Your task to perform on an android device: delete location history Image 0: 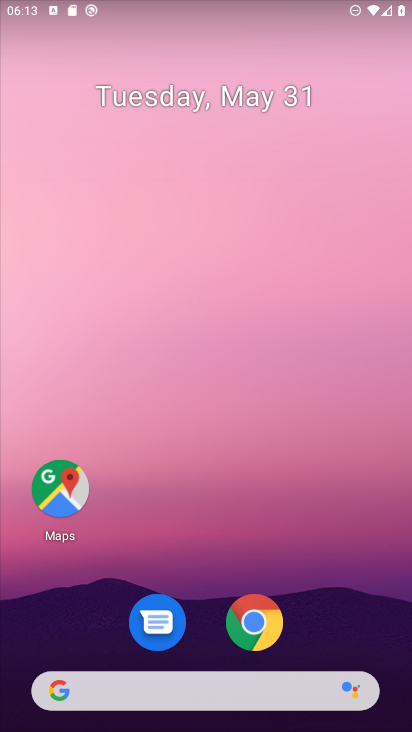
Step 0: drag from (307, 670) to (402, 664)
Your task to perform on an android device: delete location history Image 1: 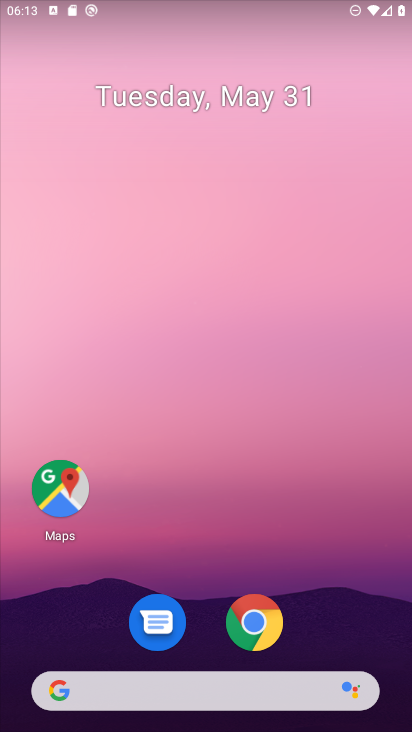
Step 1: click (353, 668)
Your task to perform on an android device: delete location history Image 2: 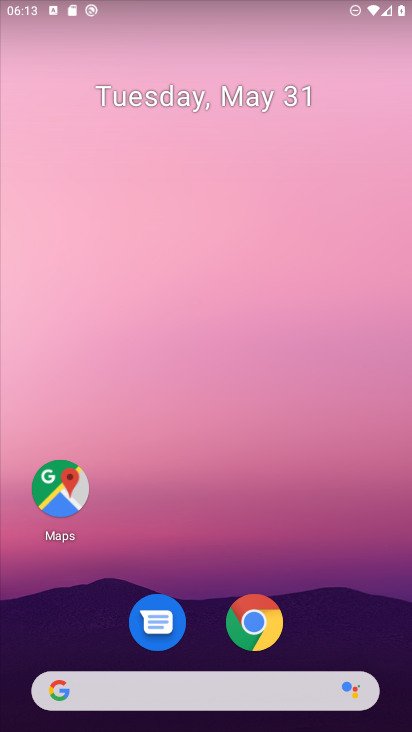
Step 2: drag from (351, 659) to (266, 39)
Your task to perform on an android device: delete location history Image 3: 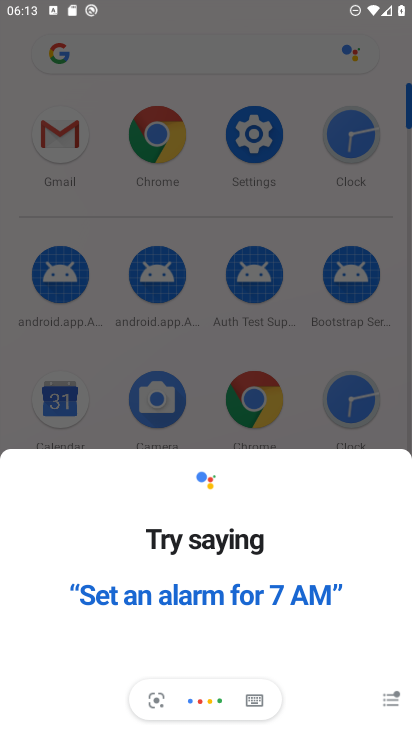
Step 3: click (298, 334)
Your task to perform on an android device: delete location history Image 4: 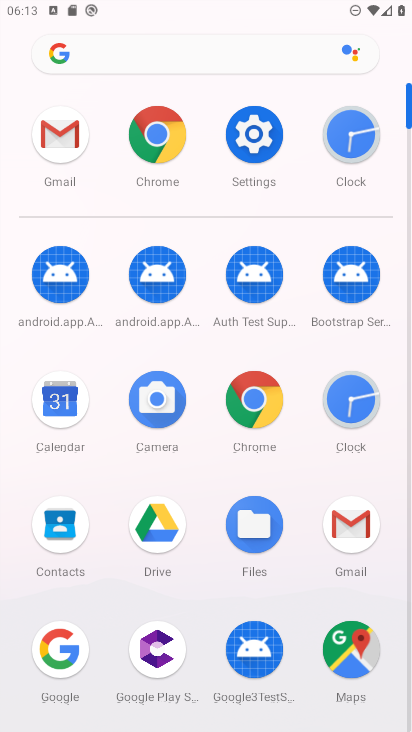
Step 4: click (356, 646)
Your task to perform on an android device: delete location history Image 5: 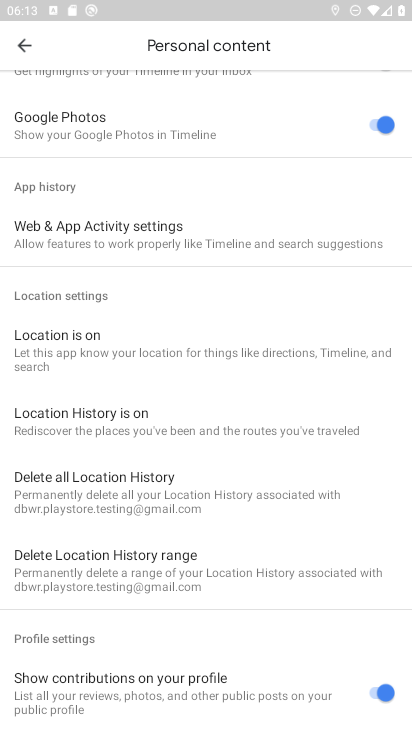
Step 5: click (198, 500)
Your task to perform on an android device: delete location history Image 6: 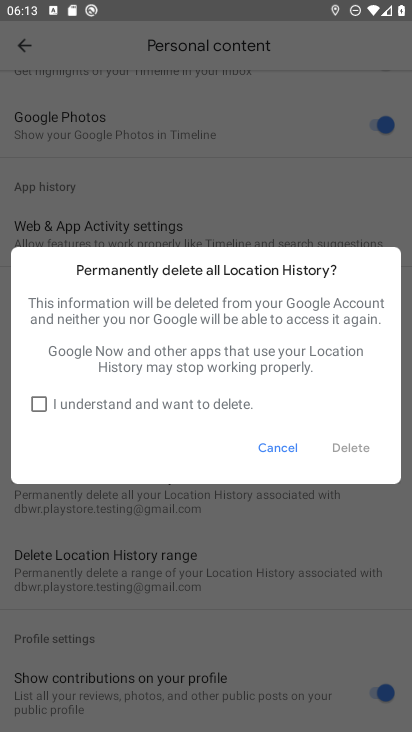
Step 6: click (43, 397)
Your task to perform on an android device: delete location history Image 7: 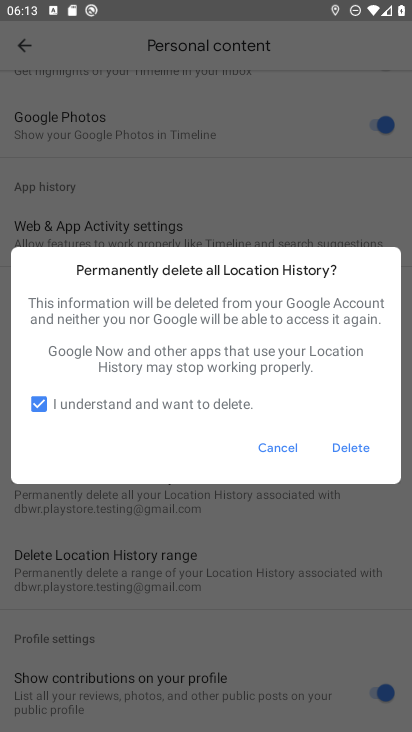
Step 7: click (361, 451)
Your task to perform on an android device: delete location history Image 8: 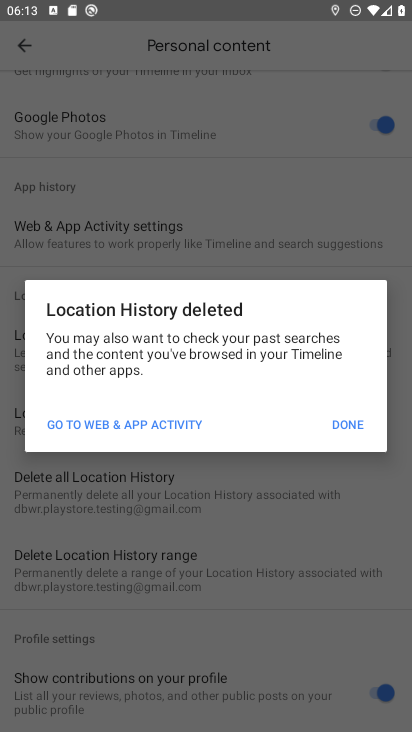
Step 8: task complete